Your task to perform on an android device: Find coffee shops on Maps Image 0: 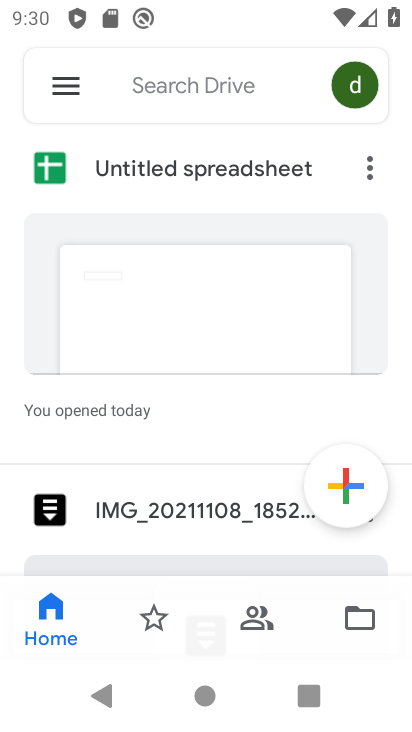
Step 0: press home button
Your task to perform on an android device: Find coffee shops on Maps Image 1: 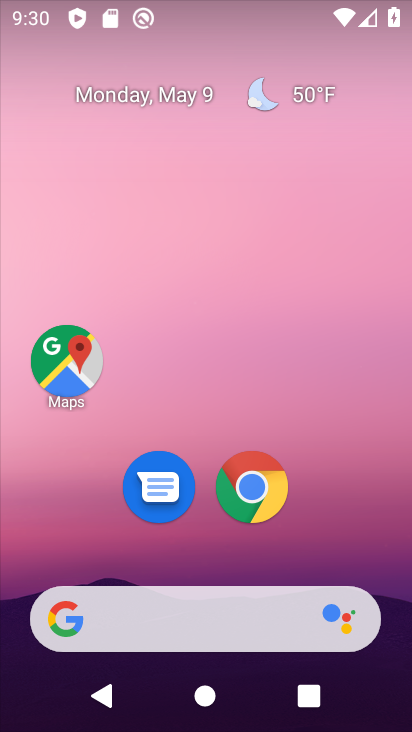
Step 1: click (49, 372)
Your task to perform on an android device: Find coffee shops on Maps Image 2: 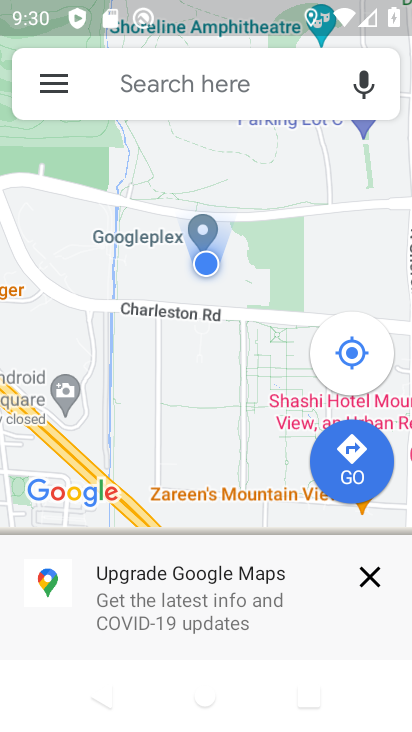
Step 2: click (111, 67)
Your task to perform on an android device: Find coffee shops on Maps Image 3: 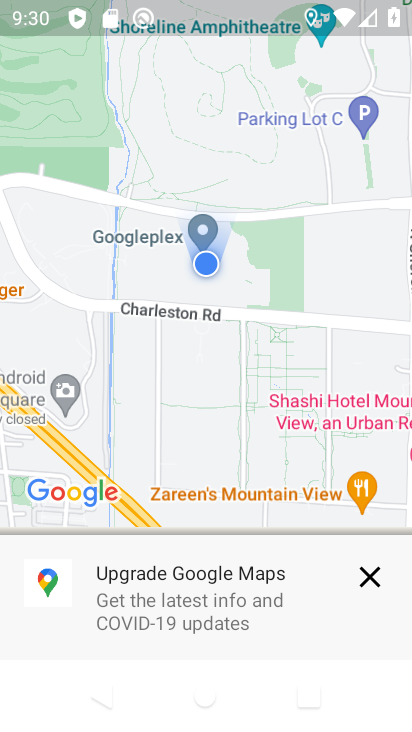
Step 3: click (378, 571)
Your task to perform on an android device: Find coffee shops on Maps Image 4: 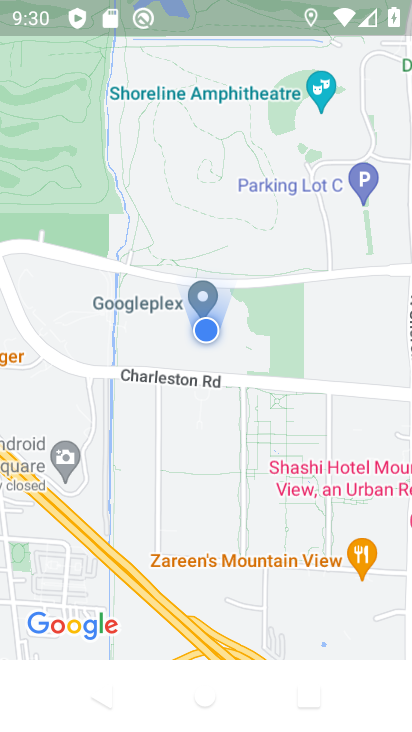
Step 4: press back button
Your task to perform on an android device: Find coffee shops on Maps Image 5: 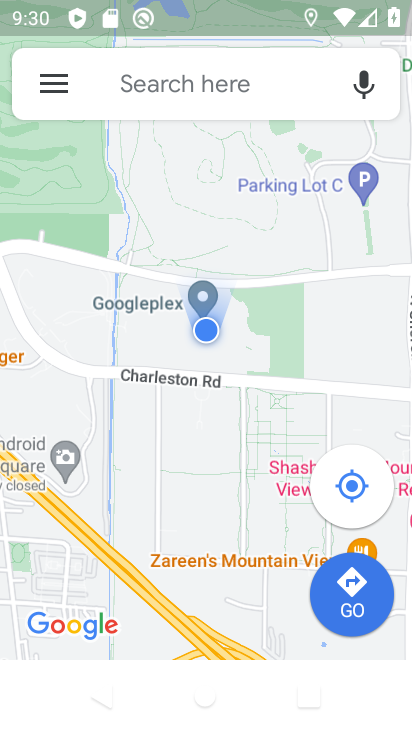
Step 5: click (170, 71)
Your task to perform on an android device: Find coffee shops on Maps Image 6: 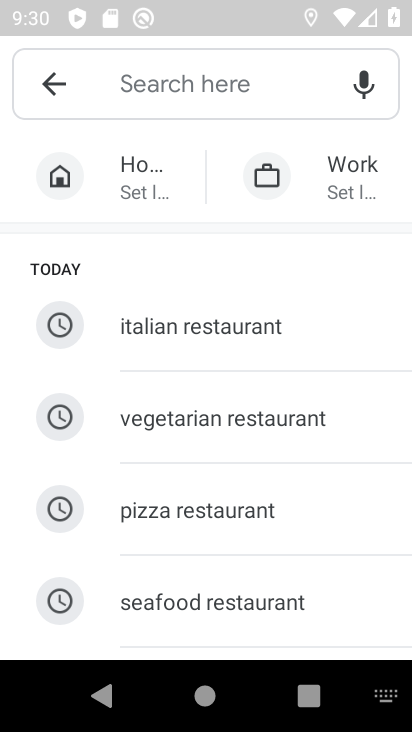
Step 6: drag from (174, 632) to (220, 244)
Your task to perform on an android device: Find coffee shops on Maps Image 7: 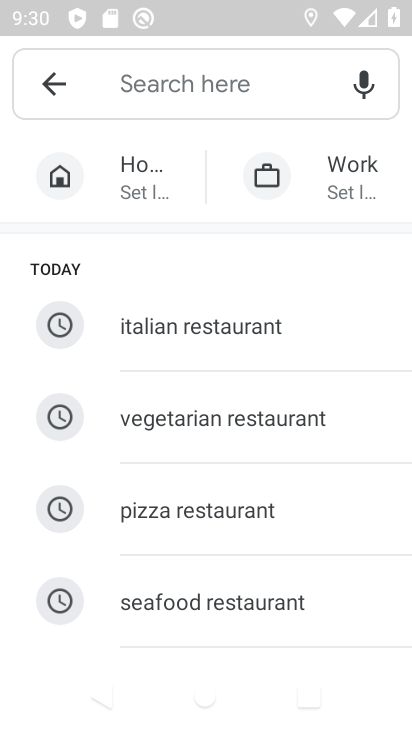
Step 7: drag from (165, 576) to (276, 237)
Your task to perform on an android device: Find coffee shops on Maps Image 8: 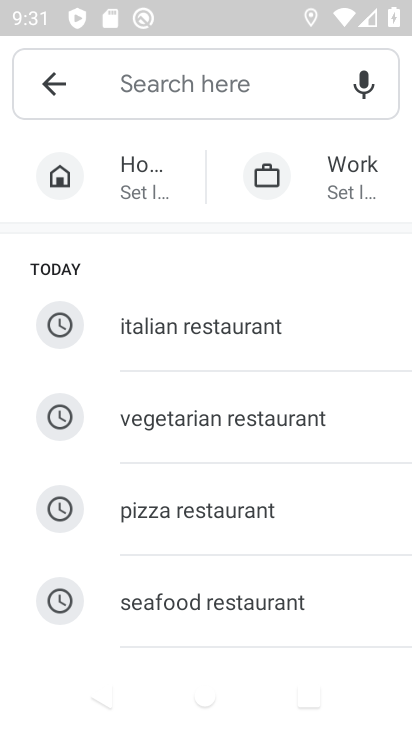
Step 8: click (163, 99)
Your task to perform on an android device: Find coffee shops on Maps Image 9: 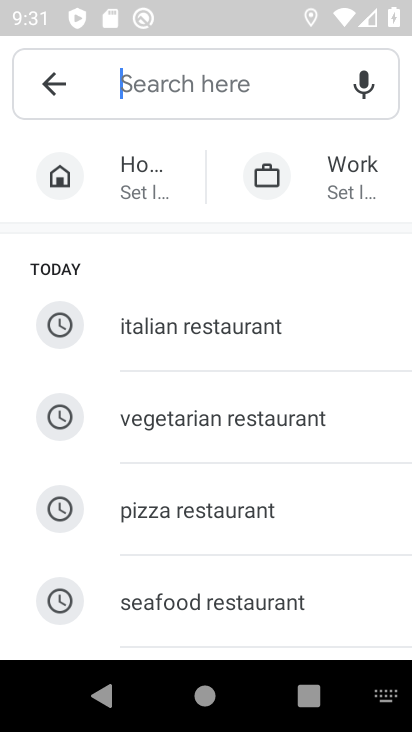
Step 9: type "coffee shops"
Your task to perform on an android device: Find coffee shops on Maps Image 10: 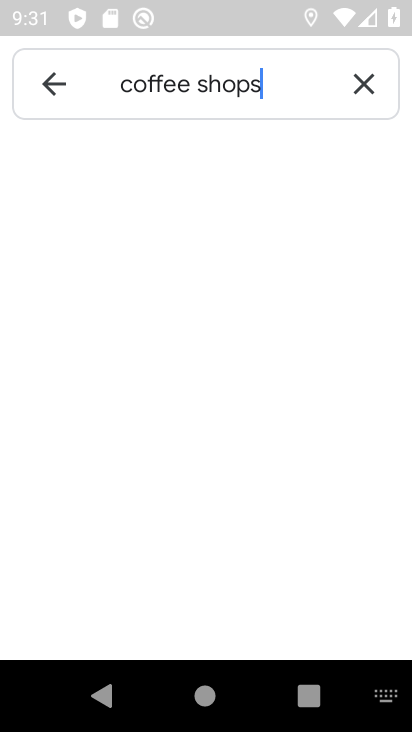
Step 10: type ""
Your task to perform on an android device: Find coffee shops on Maps Image 11: 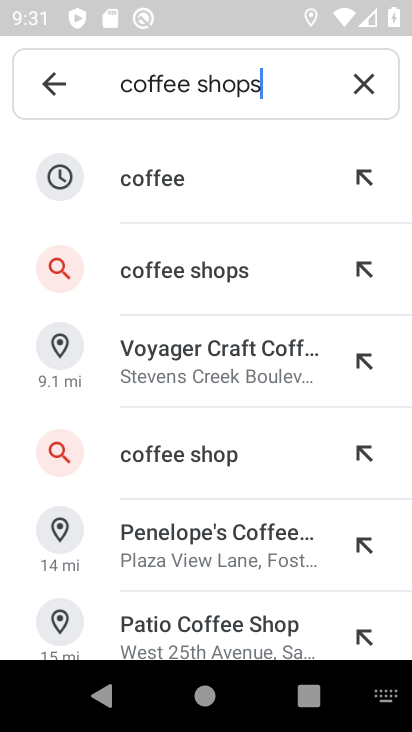
Step 11: click (190, 210)
Your task to perform on an android device: Find coffee shops on Maps Image 12: 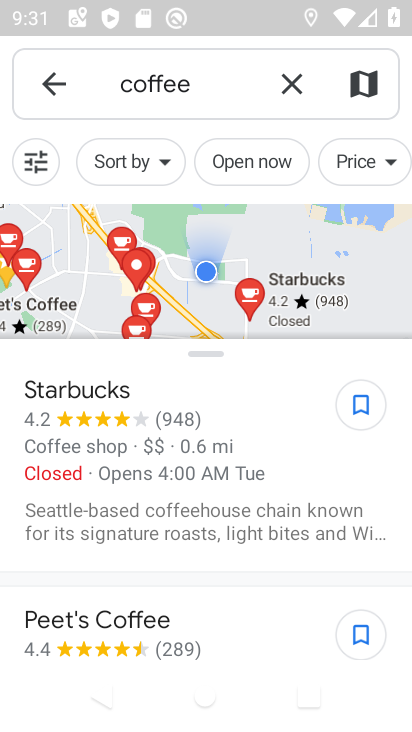
Step 12: task complete